Your task to perform on an android device: turn off improve location accuracy Image 0: 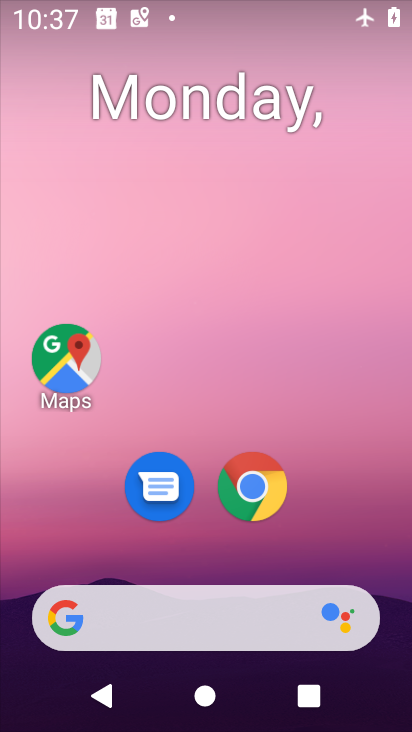
Step 0: drag from (352, 527) to (272, 7)
Your task to perform on an android device: turn off improve location accuracy Image 1: 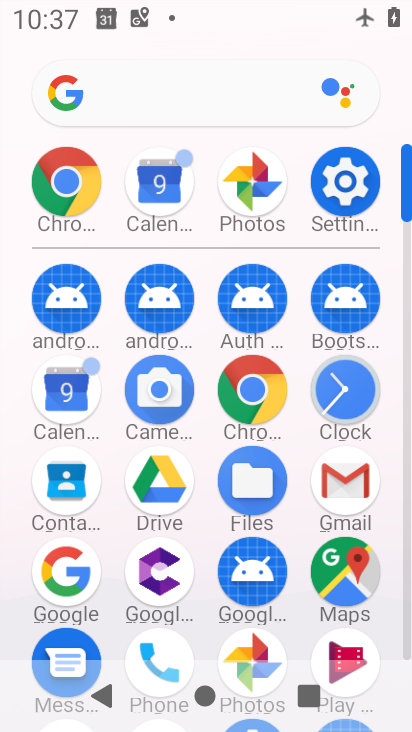
Step 1: drag from (10, 564) to (14, 200)
Your task to perform on an android device: turn off improve location accuracy Image 2: 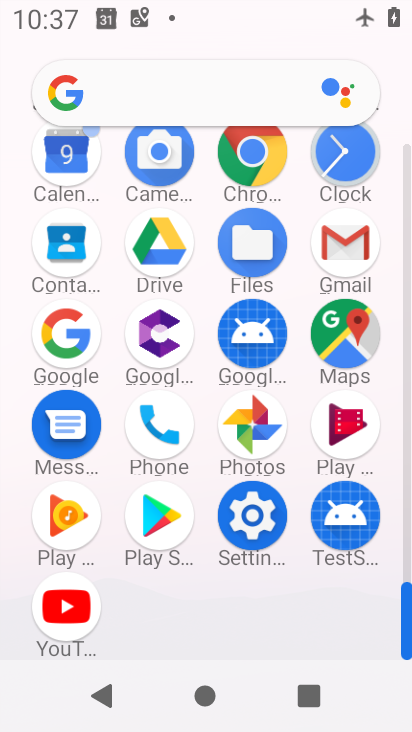
Step 2: drag from (18, 168) to (18, 441)
Your task to perform on an android device: turn off improve location accuracy Image 3: 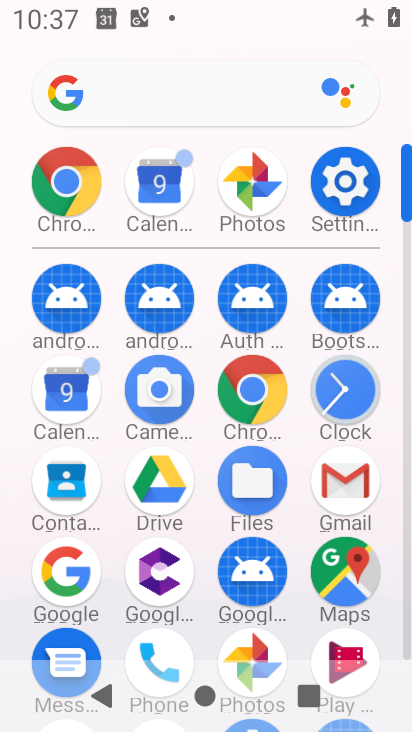
Step 3: click (337, 562)
Your task to perform on an android device: turn off improve location accuracy Image 4: 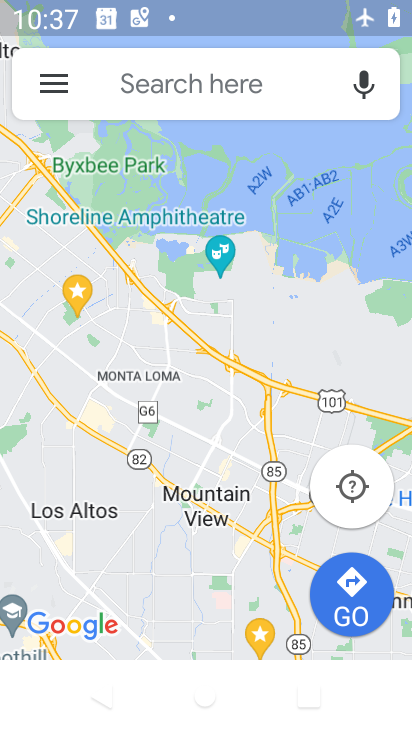
Step 4: click (48, 69)
Your task to perform on an android device: turn off improve location accuracy Image 5: 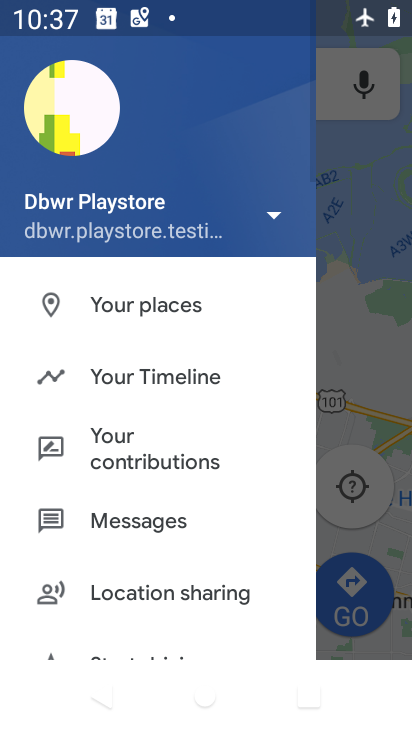
Step 5: drag from (199, 576) to (214, 201)
Your task to perform on an android device: turn off improve location accuracy Image 6: 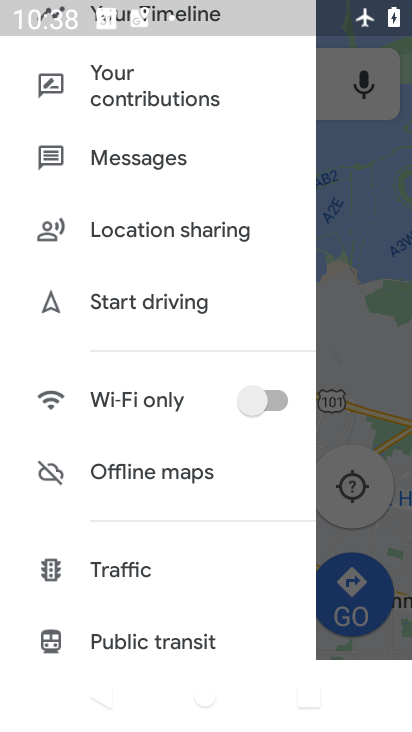
Step 6: drag from (171, 575) to (154, 169)
Your task to perform on an android device: turn off improve location accuracy Image 7: 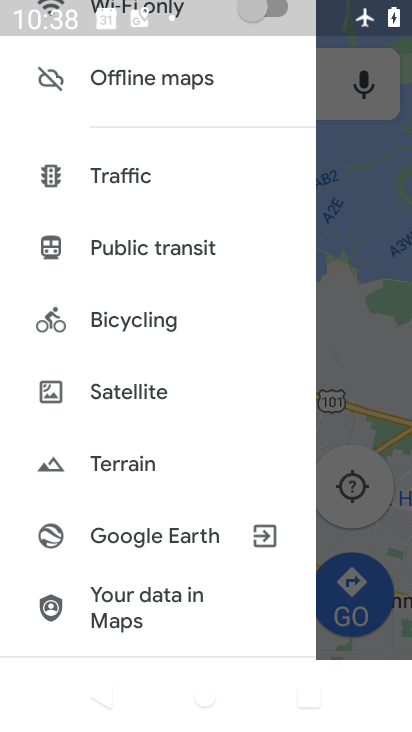
Step 7: drag from (154, 555) to (210, 137)
Your task to perform on an android device: turn off improve location accuracy Image 8: 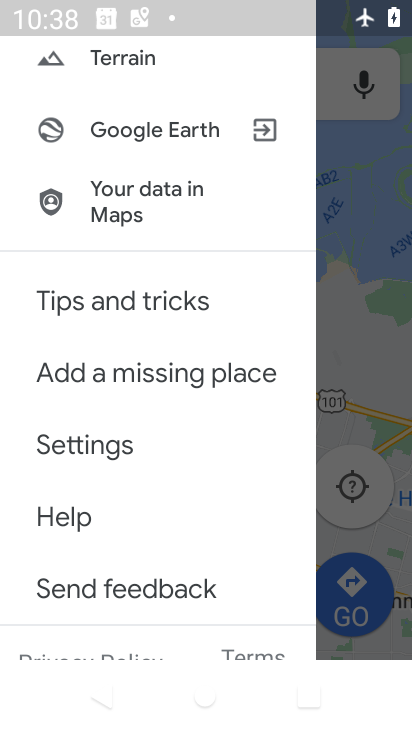
Step 8: drag from (128, 217) to (167, 213)
Your task to perform on an android device: turn off improve location accuracy Image 9: 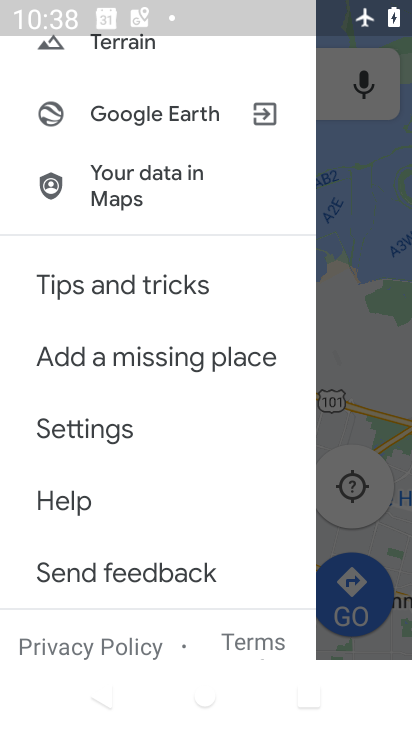
Step 9: click (96, 430)
Your task to perform on an android device: turn off improve location accuracy Image 10: 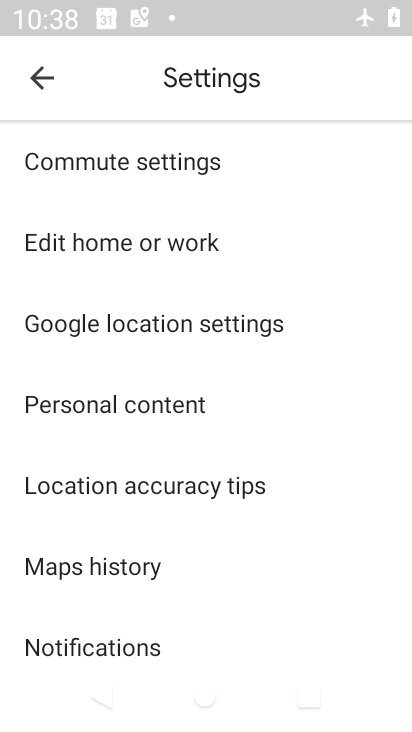
Step 10: click (199, 328)
Your task to perform on an android device: turn off improve location accuracy Image 11: 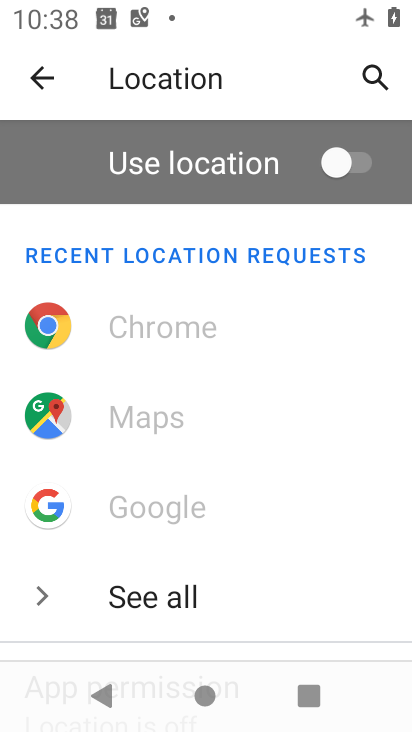
Step 11: drag from (273, 551) to (261, 123)
Your task to perform on an android device: turn off improve location accuracy Image 12: 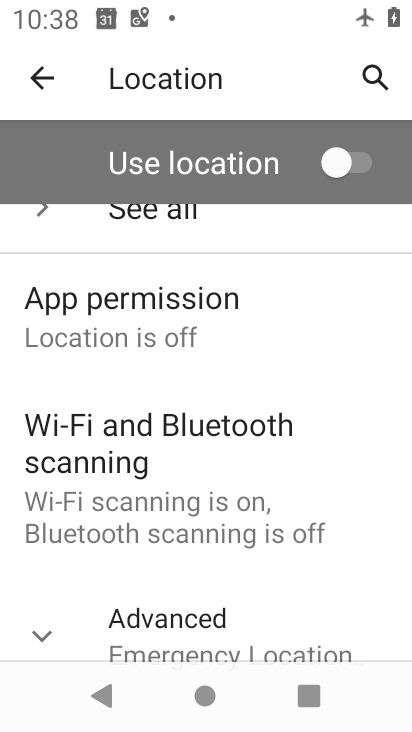
Step 12: click (225, 614)
Your task to perform on an android device: turn off improve location accuracy Image 13: 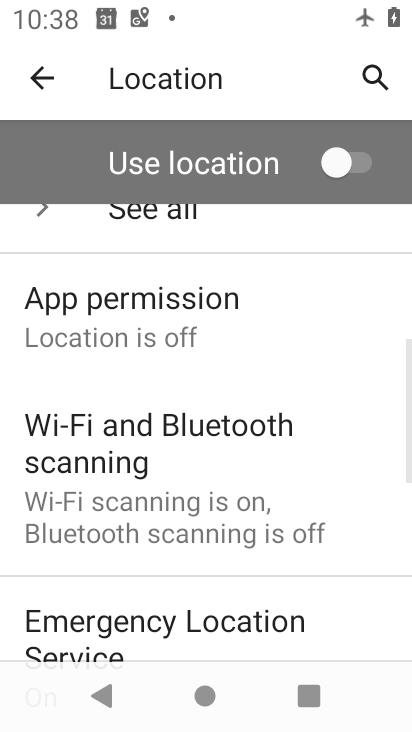
Step 13: drag from (257, 590) to (261, 296)
Your task to perform on an android device: turn off improve location accuracy Image 14: 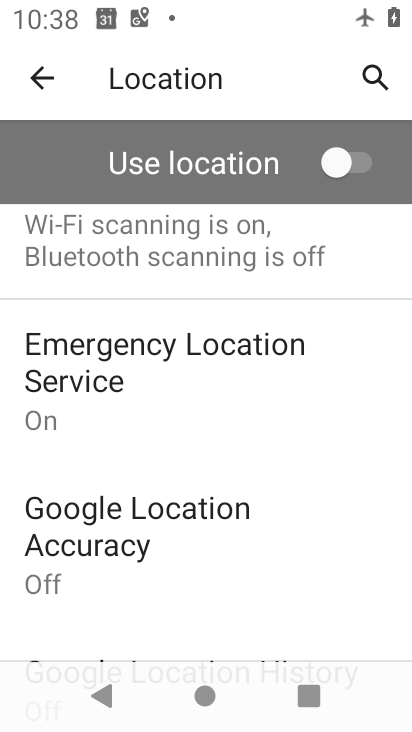
Step 14: click (209, 540)
Your task to perform on an android device: turn off improve location accuracy Image 15: 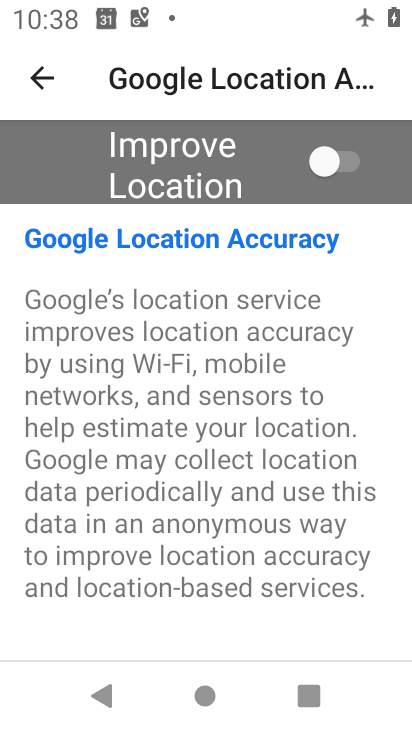
Step 15: task complete